Your task to perform on an android device: open sync settings in chrome Image 0: 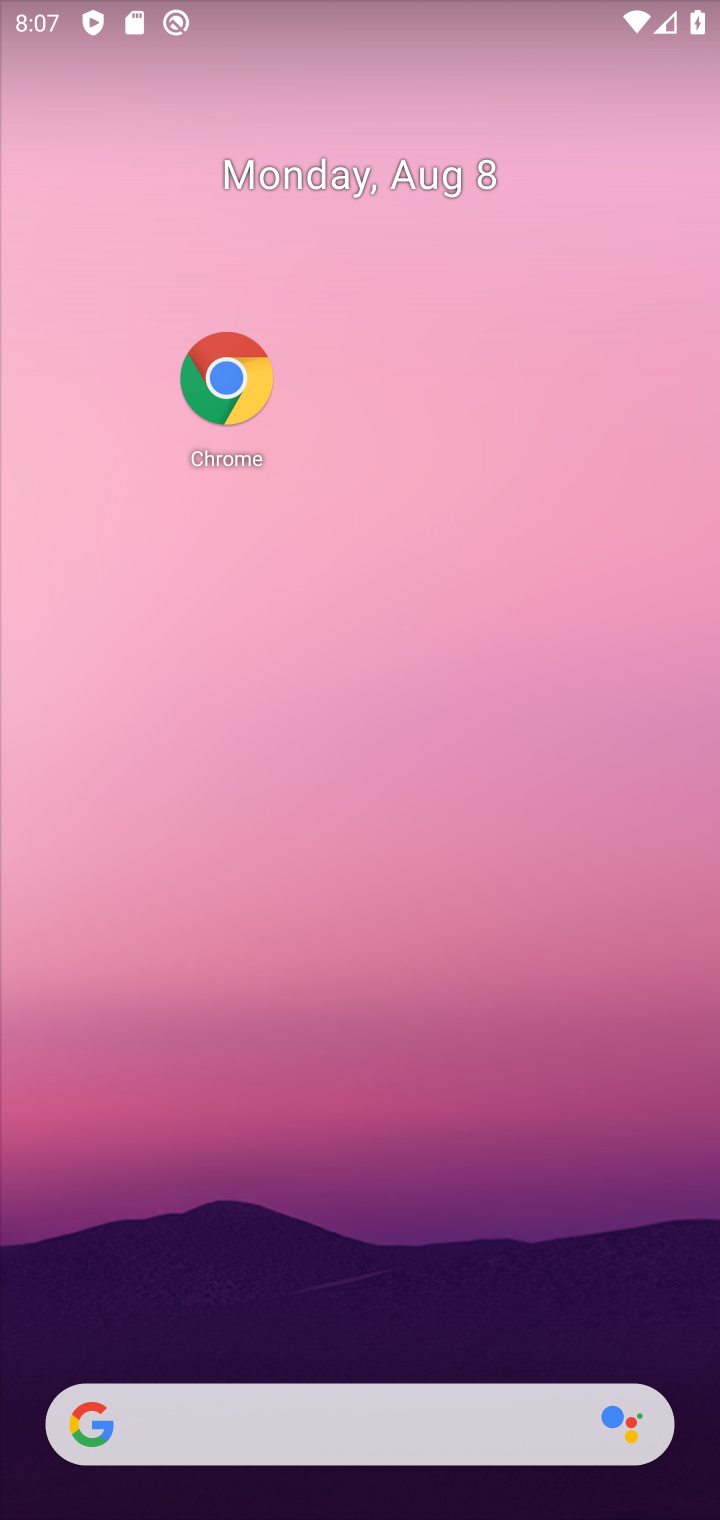
Step 0: drag from (379, 1071) to (292, 128)
Your task to perform on an android device: open sync settings in chrome Image 1: 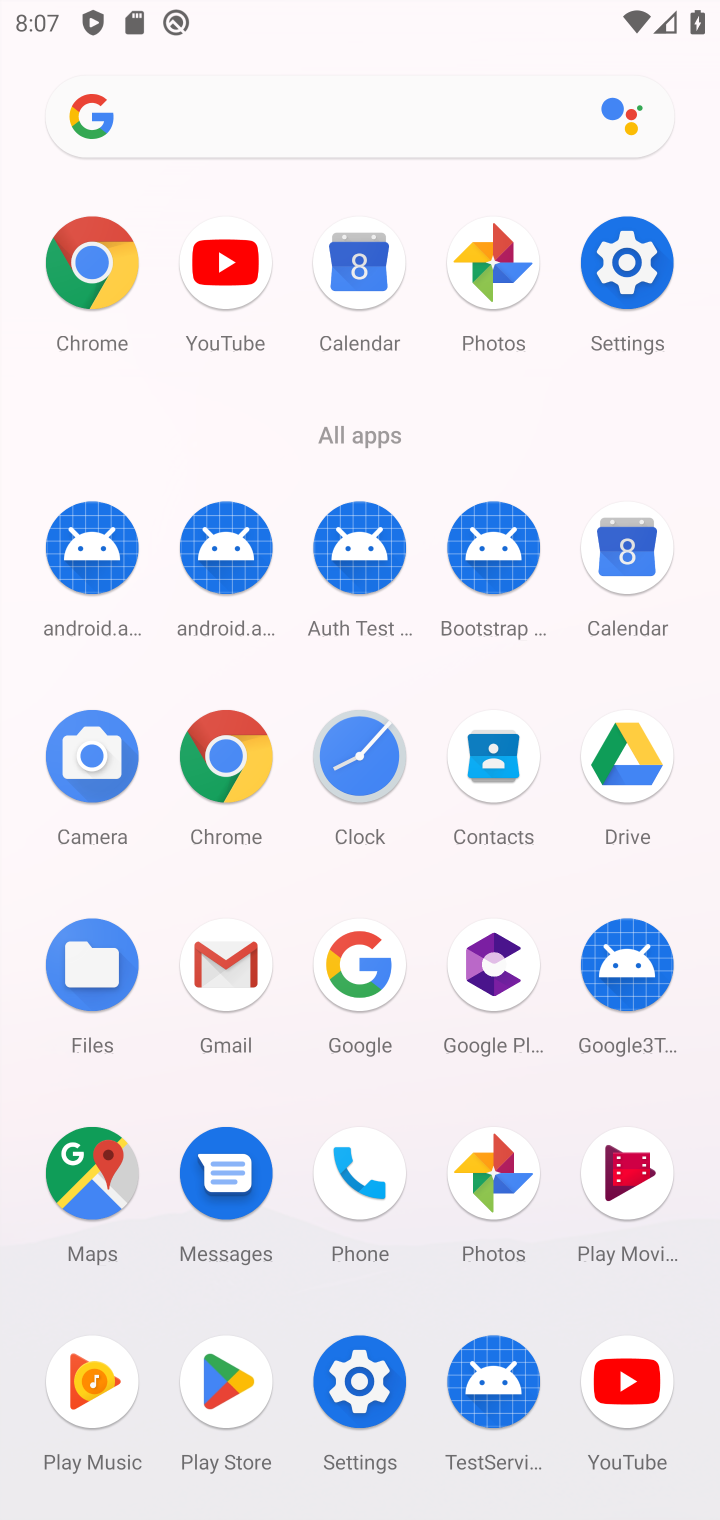
Step 1: click (65, 274)
Your task to perform on an android device: open sync settings in chrome Image 2: 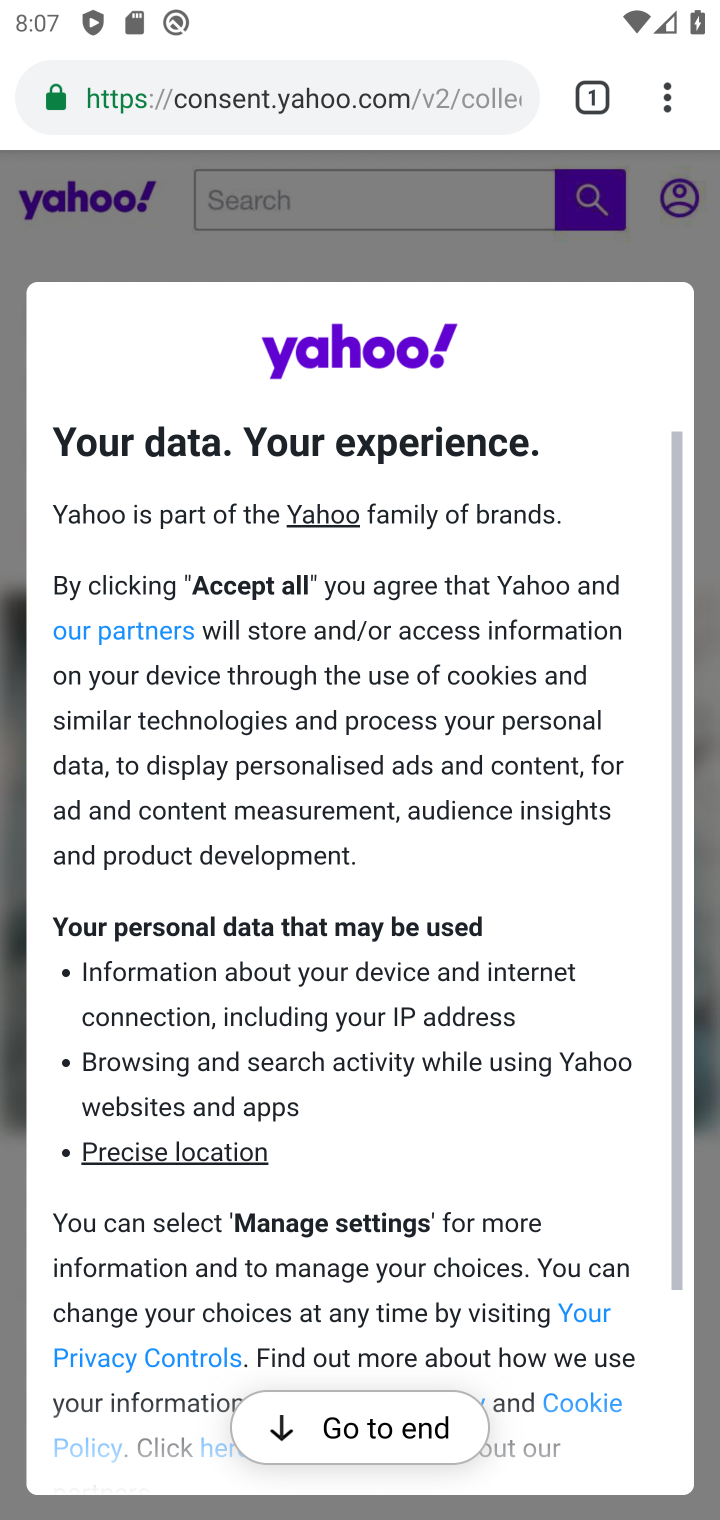
Step 2: drag from (670, 93) to (350, 1188)
Your task to perform on an android device: open sync settings in chrome Image 3: 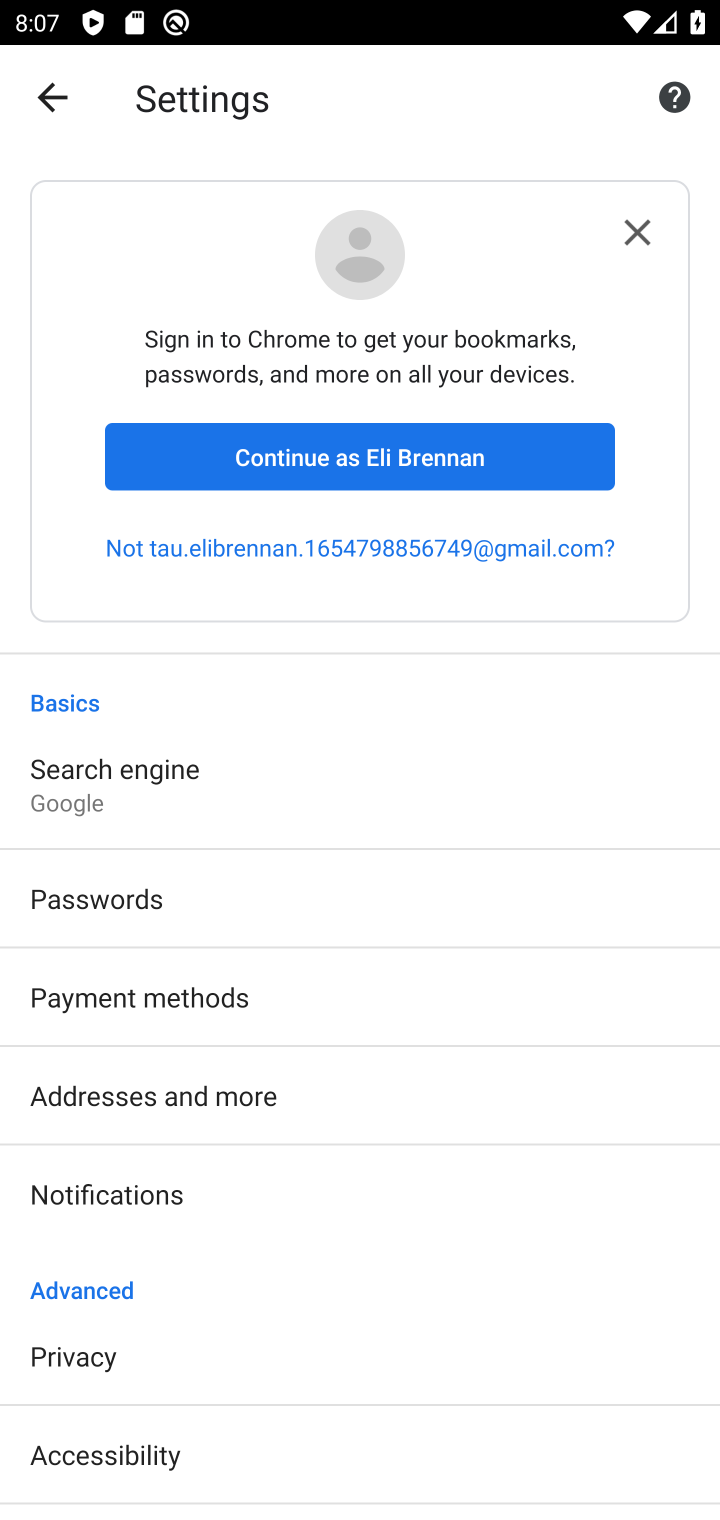
Step 3: drag from (221, 1252) to (180, 422)
Your task to perform on an android device: open sync settings in chrome Image 4: 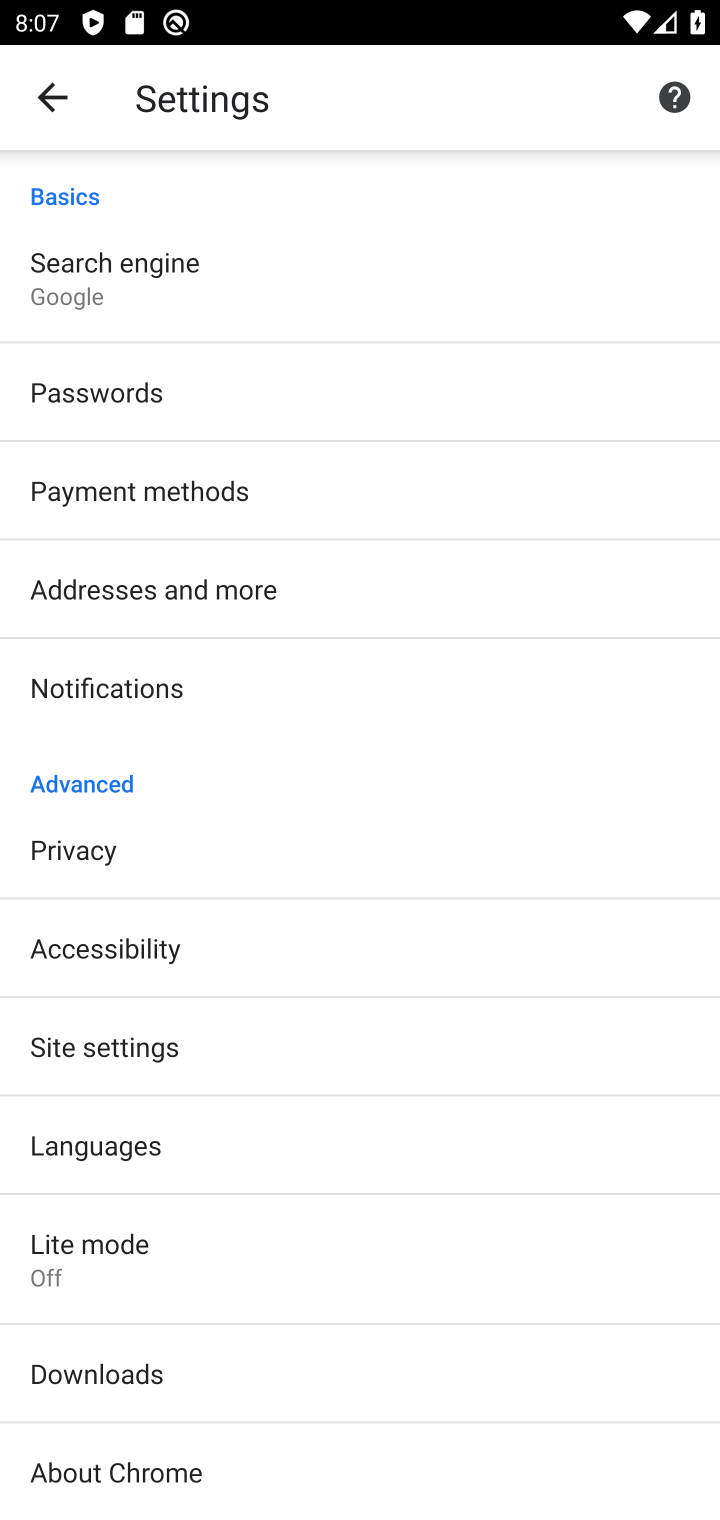
Step 4: click (150, 1055)
Your task to perform on an android device: open sync settings in chrome Image 5: 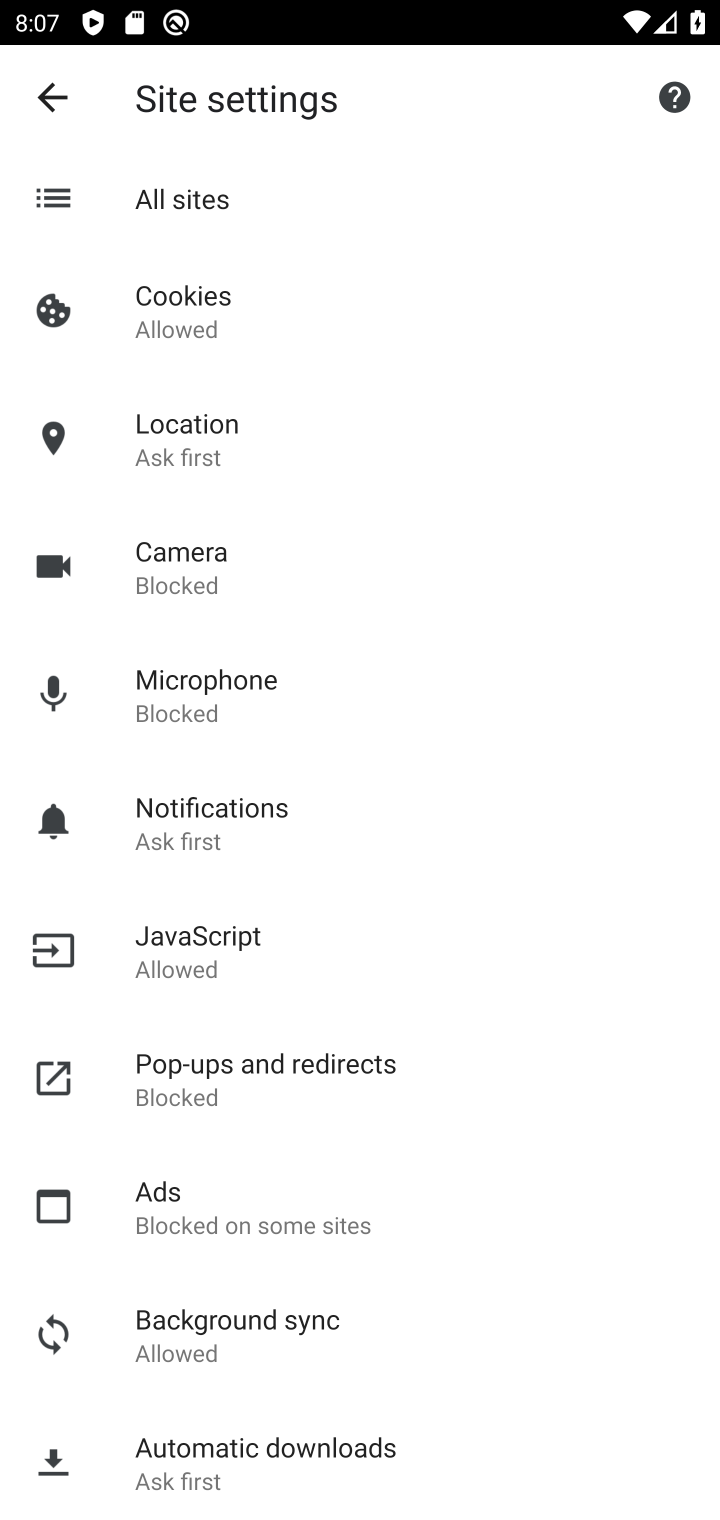
Step 5: click (251, 1326)
Your task to perform on an android device: open sync settings in chrome Image 6: 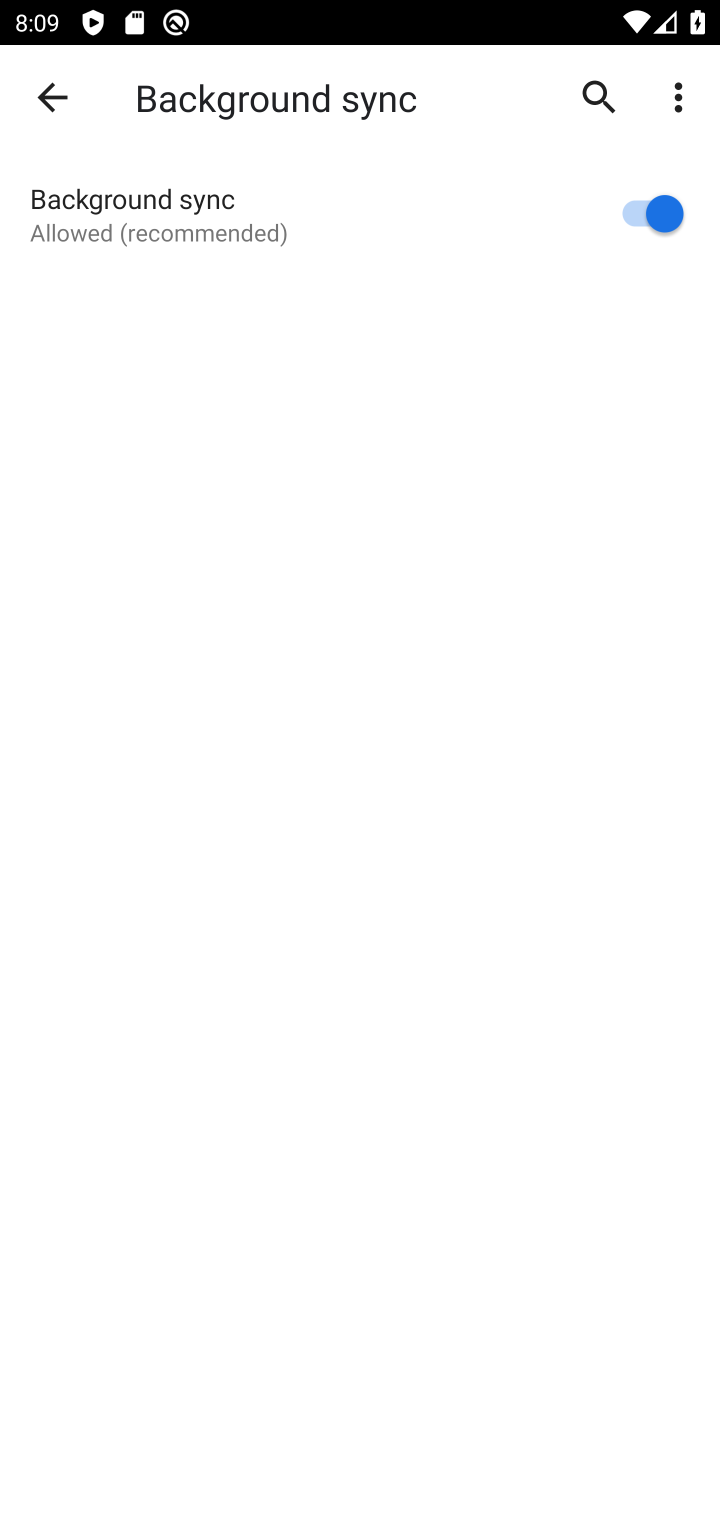
Step 6: task complete